Your task to perform on an android device: toggle airplane mode Image 0: 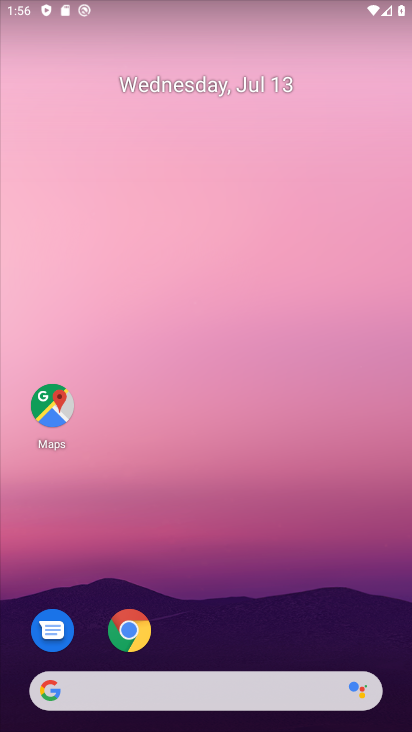
Step 0: drag from (249, 665) to (159, 323)
Your task to perform on an android device: toggle airplane mode Image 1: 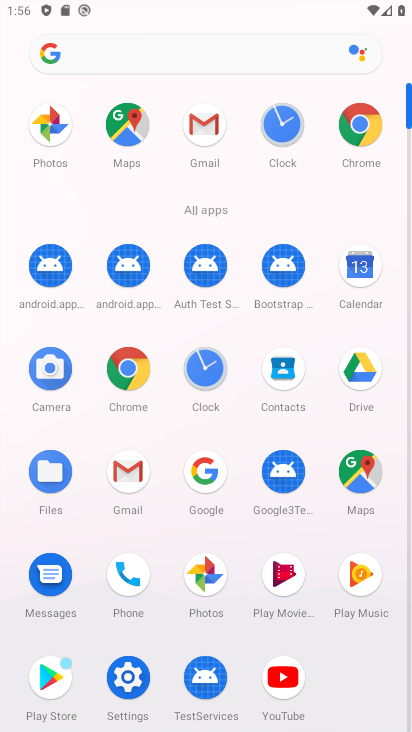
Step 1: click (128, 685)
Your task to perform on an android device: toggle airplane mode Image 2: 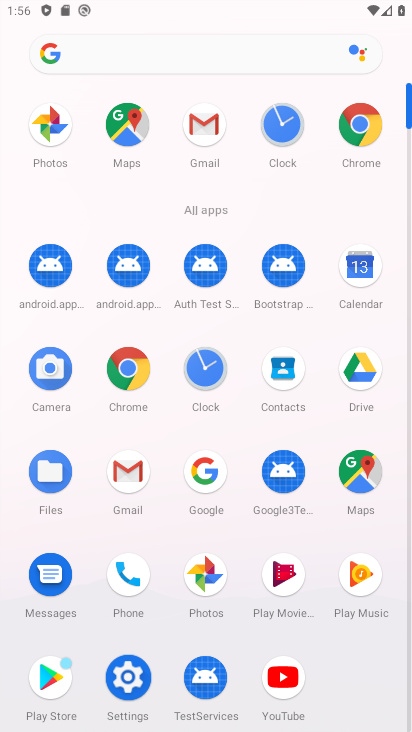
Step 2: click (133, 684)
Your task to perform on an android device: toggle airplane mode Image 3: 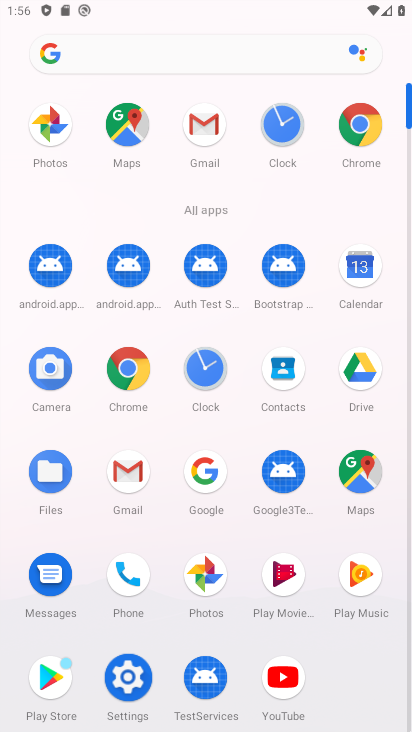
Step 3: click (133, 684)
Your task to perform on an android device: toggle airplane mode Image 4: 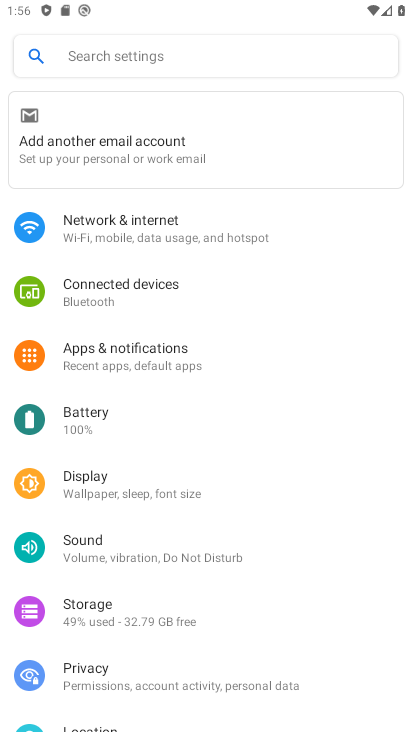
Step 4: drag from (162, 600) to (40, 218)
Your task to perform on an android device: toggle airplane mode Image 5: 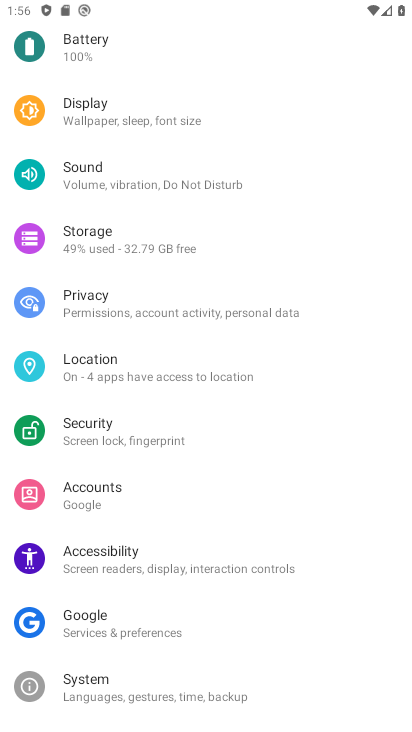
Step 5: drag from (139, 439) to (144, 254)
Your task to perform on an android device: toggle airplane mode Image 6: 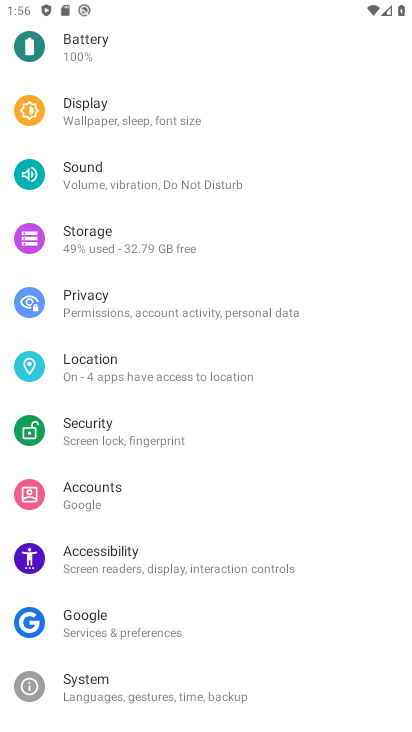
Step 6: drag from (91, 159) to (122, 499)
Your task to perform on an android device: toggle airplane mode Image 7: 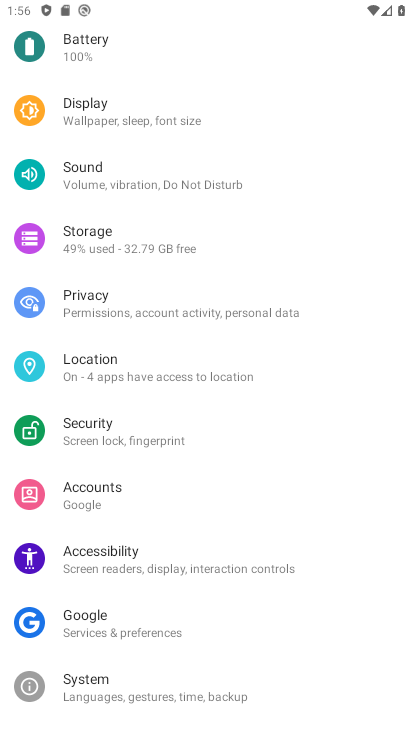
Step 7: drag from (142, 122) to (137, 456)
Your task to perform on an android device: toggle airplane mode Image 8: 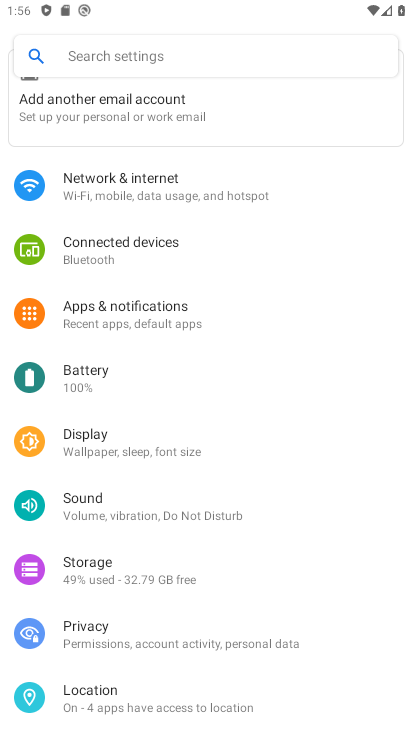
Step 8: drag from (132, 187) to (133, 519)
Your task to perform on an android device: toggle airplane mode Image 9: 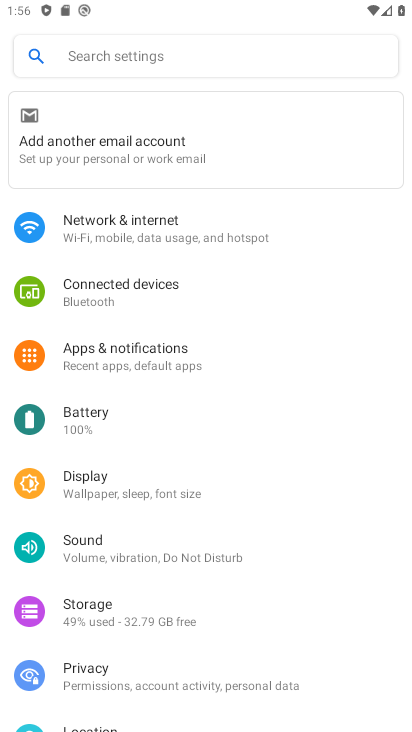
Step 9: click (136, 229)
Your task to perform on an android device: toggle airplane mode Image 10: 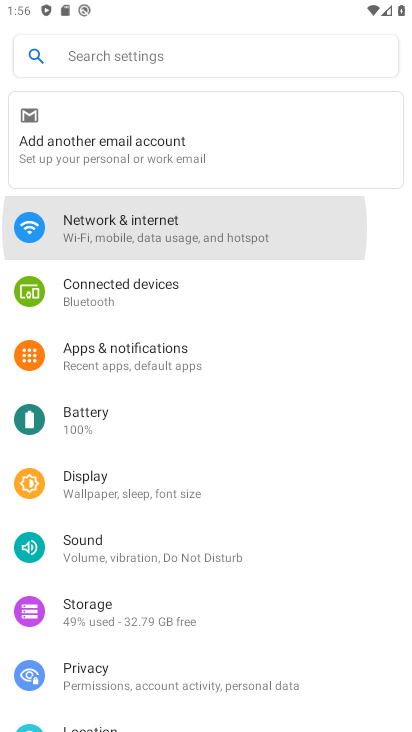
Step 10: click (136, 229)
Your task to perform on an android device: toggle airplane mode Image 11: 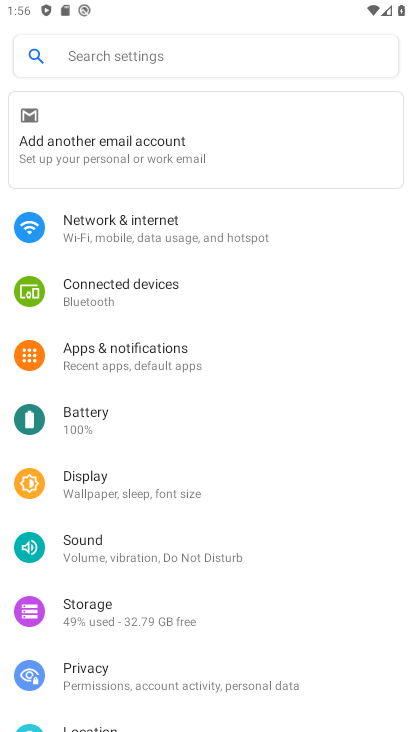
Step 11: click (136, 229)
Your task to perform on an android device: toggle airplane mode Image 12: 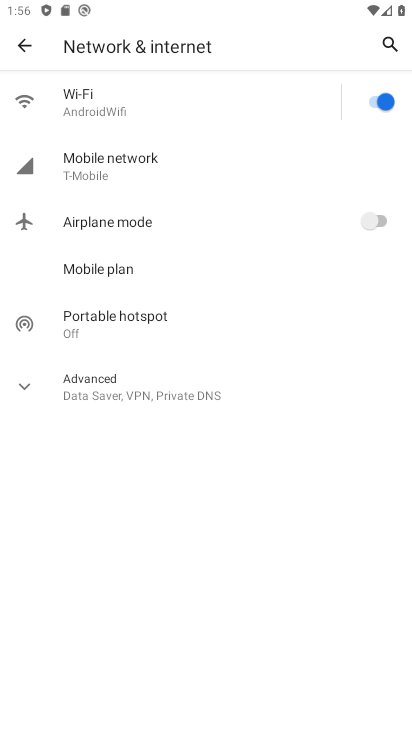
Step 12: click (374, 225)
Your task to perform on an android device: toggle airplane mode Image 13: 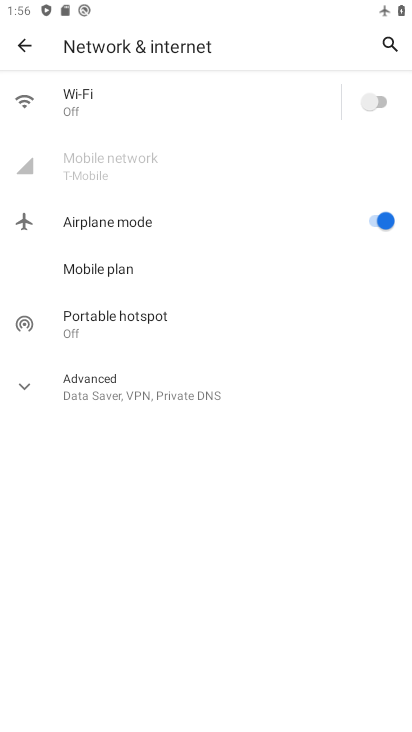
Step 13: task complete